Your task to perform on an android device: search for starred emails in the gmail app Image 0: 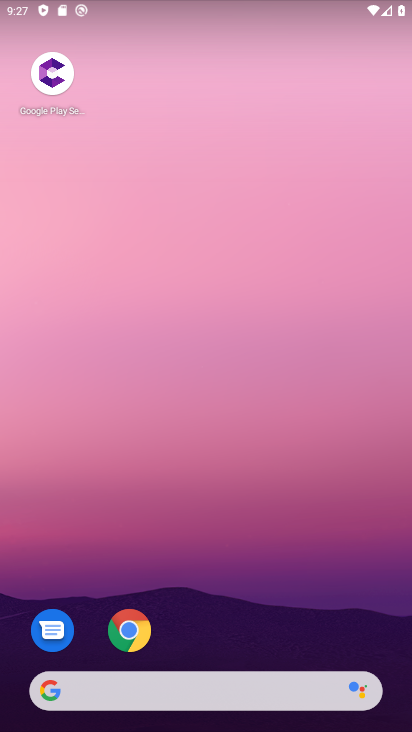
Step 0: drag from (306, 638) to (269, 225)
Your task to perform on an android device: search for starred emails in the gmail app Image 1: 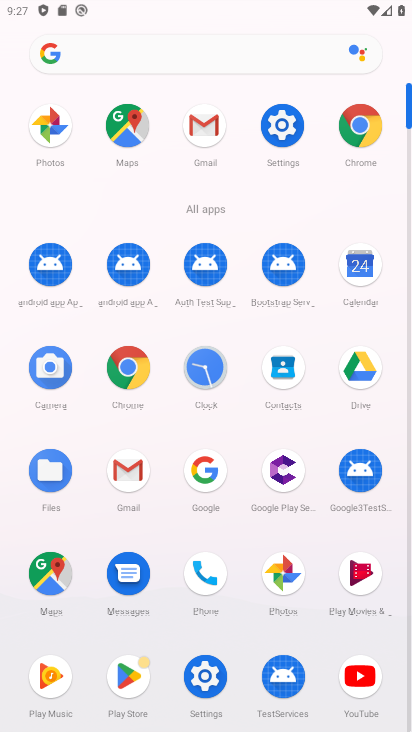
Step 1: click (128, 465)
Your task to perform on an android device: search for starred emails in the gmail app Image 2: 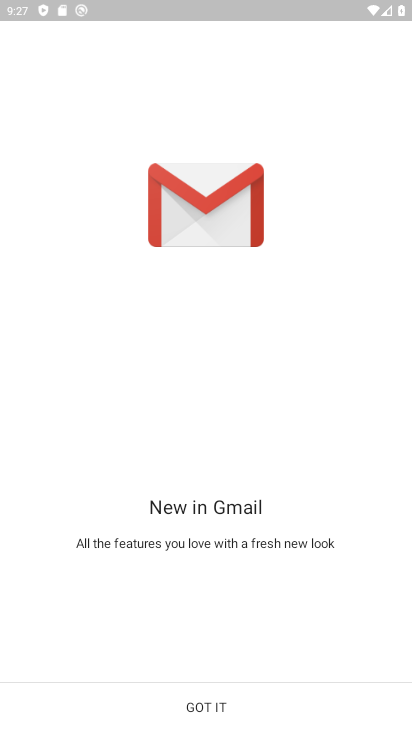
Step 2: click (209, 713)
Your task to perform on an android device: search for starred emails in the gmail app Image 3: 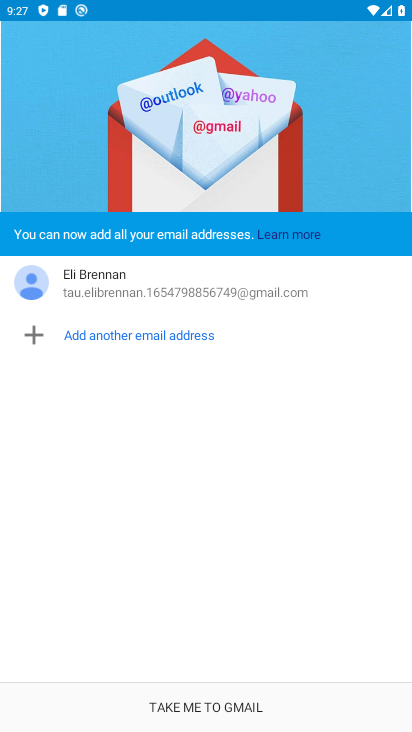
Step 3: click (207, 700)
Your task to perform on an android device: search for starred emails in the gmail app Image 4: 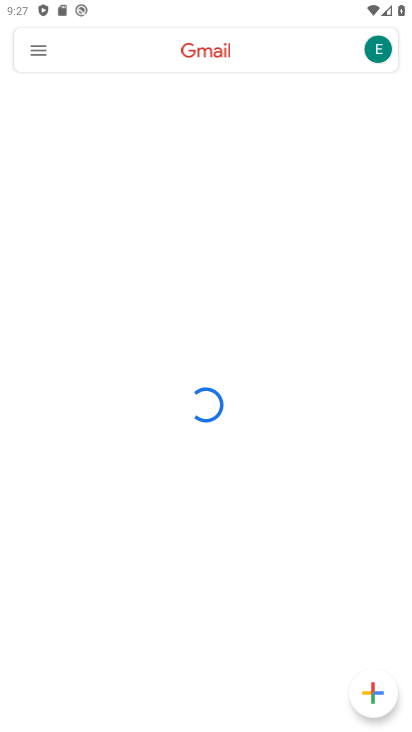
Step 4: click (30, 46)
Your task to perform on an android device: search for starred emails in the gmail app Image 5: 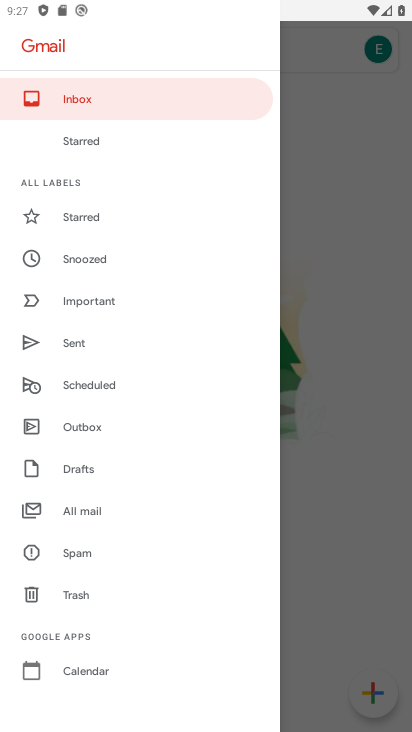
Step 5: click (88, 139)
Your task to perform on an android device: search for starred emails in the gmail app Image 6: 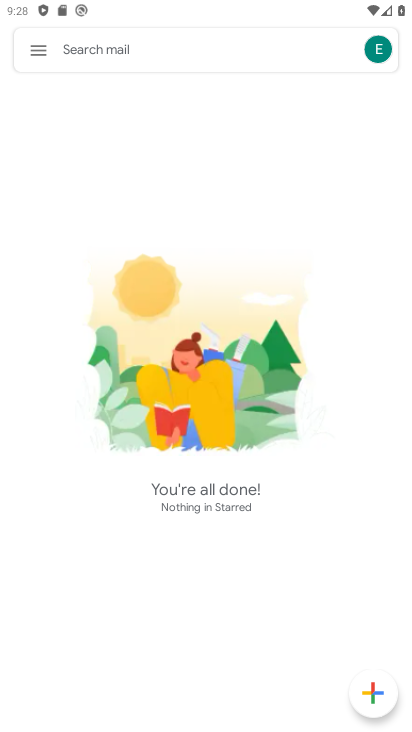
Step 6: task complete